Your task to perform on an android device: turn on priority inbox in the gmail app Image 0: 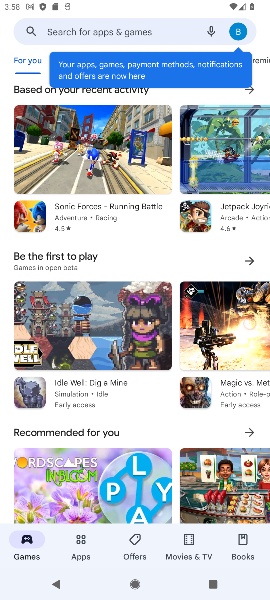
Step 0: press home button
Your task to perform on an android device: turn on priority inbox in the gmail app Image 1: 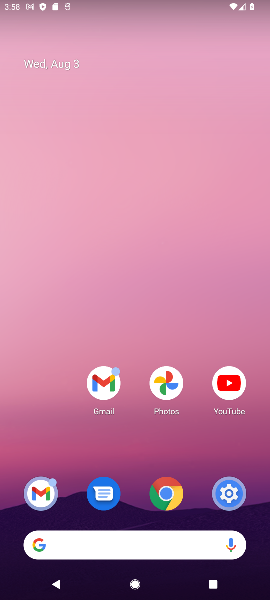
Step 1: drag from (61, 439) to (70, 134)
Your task to perform on an android device: turn on priority inbox in the gmail app Image 2: 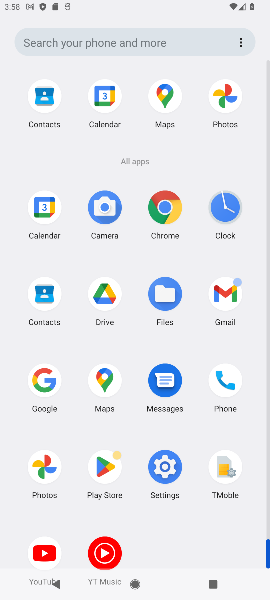
Step 2: click (229, 292)
Your task to perform on an android device: turn on priority inbox in the gmail app Image 3: 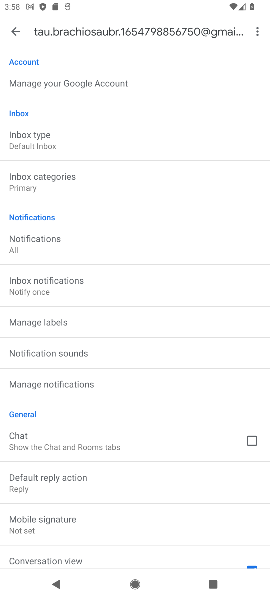
Step 3: drag from (180, 446) to (181, 395)
Your task to perform on an android device: turn on priority inbox in the gmail app Image 4: 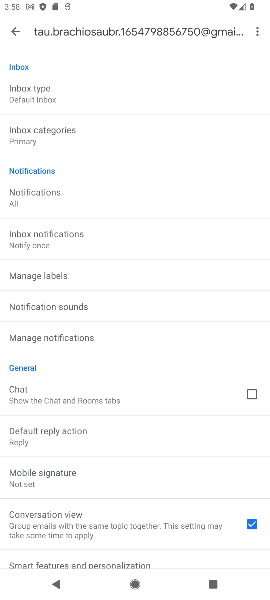
Step 4: drag from (188, 491) to (185, 391)
Your task to perform on an android device: turn on priority inbox in the gmail app Image 5: 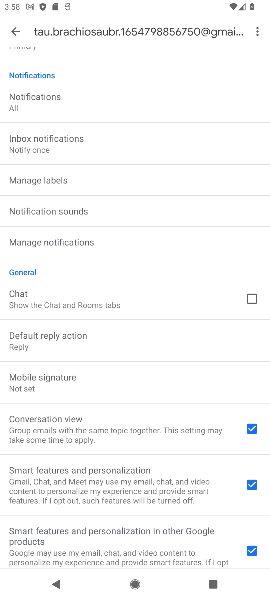
Step 5: drag from (182, 513) to (182, 444)
Your task to perform on an android device: turn on priority inbox in the gmail app Image 6: 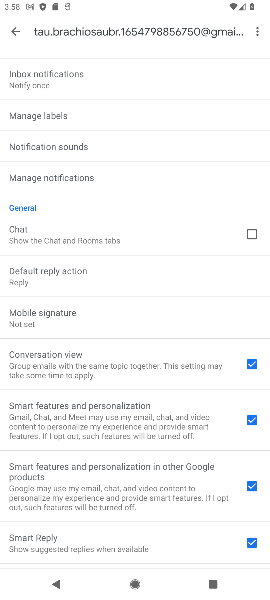
Step 6: drag from (185, 535) to (188, 436)
Your task to perform on an android device: turn on priority inbox in the gmail app Image 7: 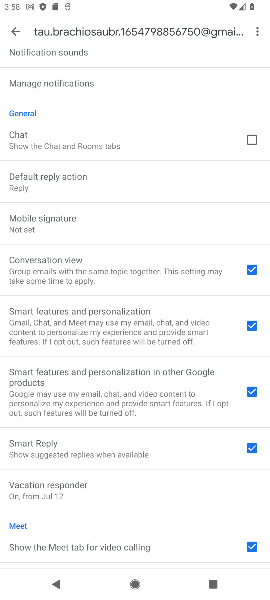
Step 7: drag from (180, 508) to (177, 413)
Your task to perform on an android device: turn on priority inbox in the gmail app Image 8: 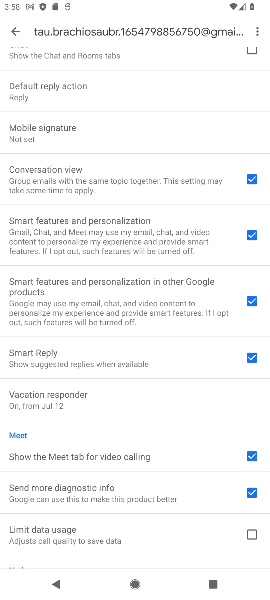
Step 8: drag from (178, 511) to (182, 431)
Your task to perform on an android device: turn on priority inbox in the gmail app Image 9: 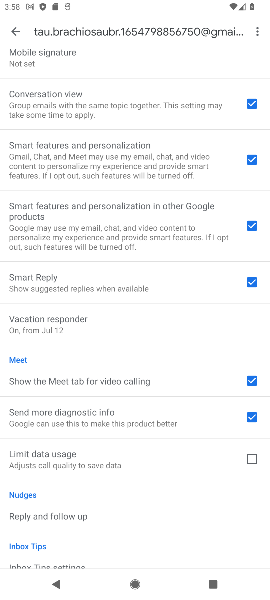
Step 9: drag from (174, 517) to (178, 415)
Your task to perform on an android device: turn on priority inbox in the gmail app Image 10: 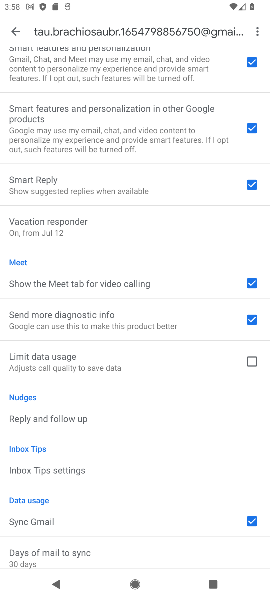
Step 10: drag from (163, 519) to (176, 428)
Your task to perform on an android device: turn on priority inbox in the gmail app Image 11: 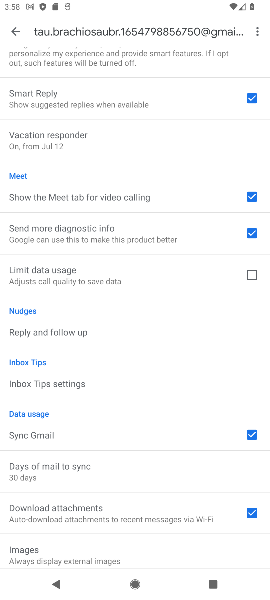
Step 11: drag from (165, 485) to (174, 396)
Your task to perform on an android device: turn on priority inbox in the gmail app Image 12: 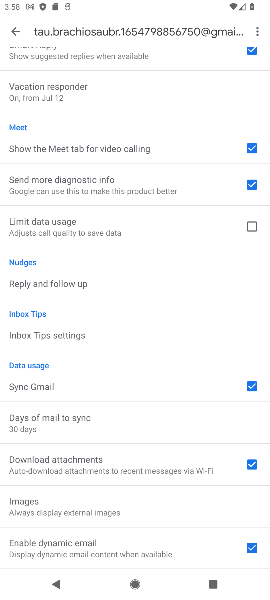
Step 12: drag from (163, 253) to (173, 352)
Your task to perform on an android device: turn on priority inbox in the gmail app Image 13: 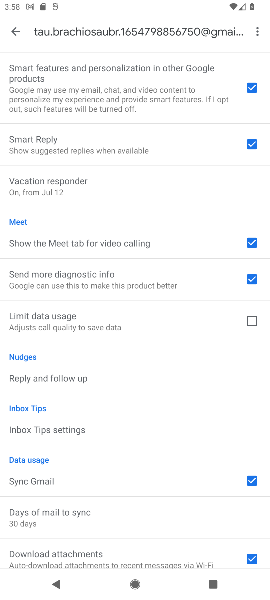
Step 13: drag from (195, 196) to (207, 307)
Your task to perform on an android device: turn on priority inbox in the gmail app Image 14: 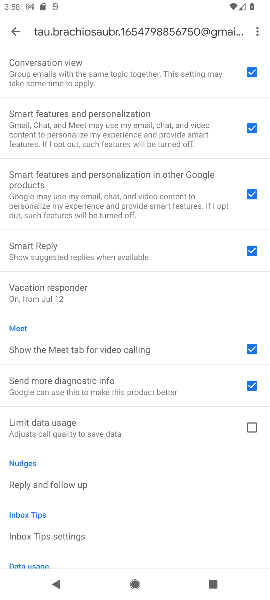
Step 14: drag from (202, 143) to (201, 281)
Your task to perform on an android device: turn on priority inbox in the gmail app Image 15: 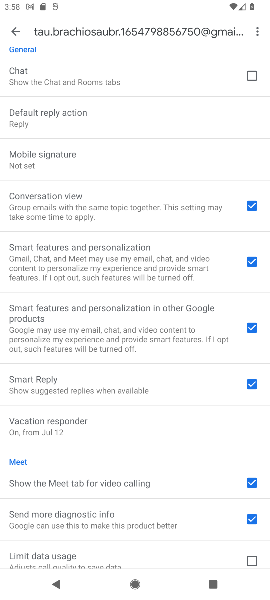
Step 15: drag from (168, 109) to (171, 340)
Your task to perform on an android device: turn on priority inbox in the gmail app Image 16: 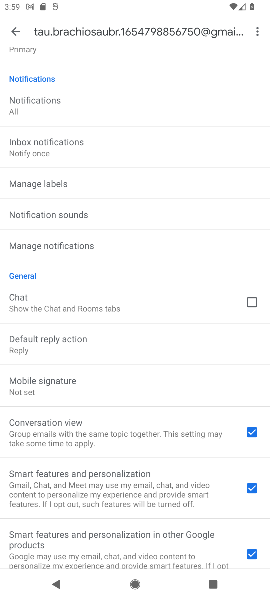
Step 16: drag from (137, 79) to (138, 285)
Your task to perform on an android device: turn on priority inbox in the gmail app Image 17: 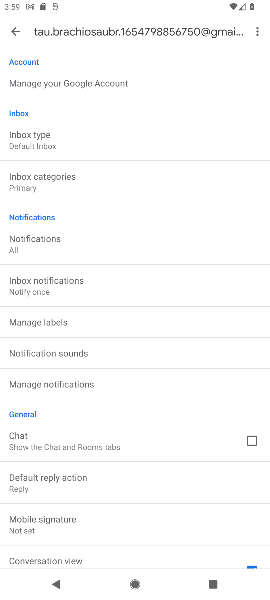
Step 17: click (61, 142)
Your task to perform on an android device: turn on priority inbox in the gmail app Image 18: 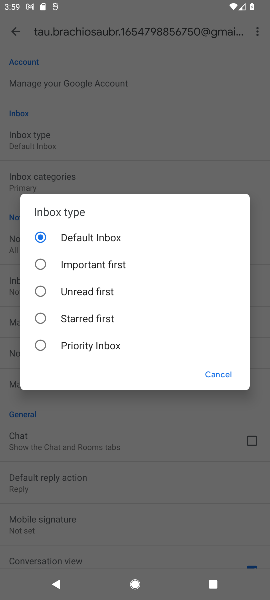
Step 18: click (84, 343)
Your task to perform on an android device: turn on priority inbox in the gmail app Image 19: 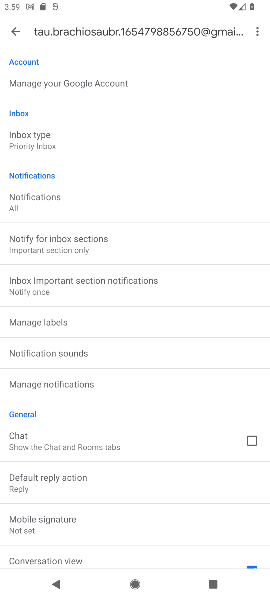
Step 19: task complete